Your task to perform on an android device: View the shopping cart on newegg.com. Add "razer blade" to the cart on newegg.com Image 0: 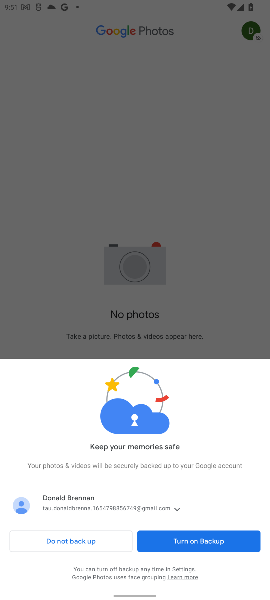
Step 0: press home button
Your task to perform on an android device: View the shopping cart on newegg.com. Add "razer blade" to the cart on newegg.com Image 1: 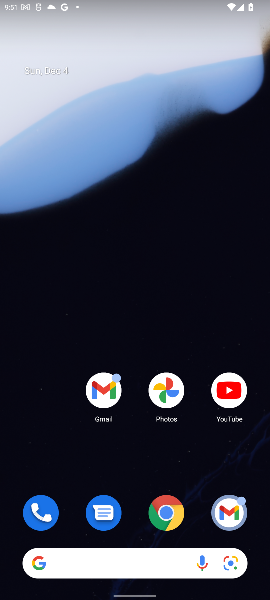
Step 1: click (168, 516)
Your task to perform on an android device: View the shopping cart on newegg.com. Add "razer blade" to the cart on newegg.com Image 2: 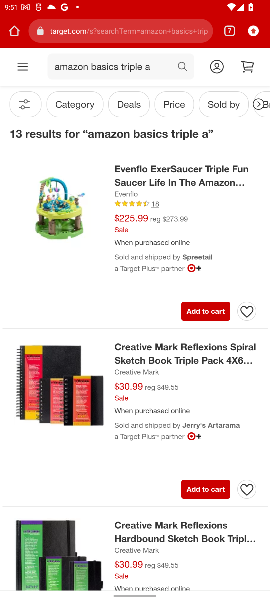
Step 2: click (233, 32)
Your task to perform on an android device: View the shopping cart on newegg.com. Add "razer blade" to the cart on newegg.com Image 3: 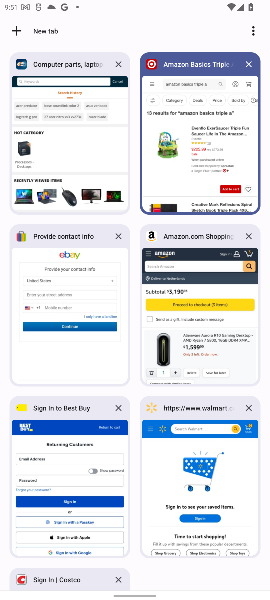
Step 3: click (65, 158)
Your task to perform on an android device: View the shopping cart on newegg.com. Add "razer blade" to the cart on newegg.com Image 4: 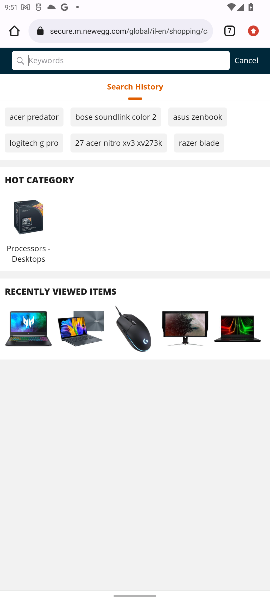
Step 4: type "razer blade"
Your task to perform on an android device: View the shopping cart on newegg.com. Add "razer blade" to the cart on newegg.com Image 5: 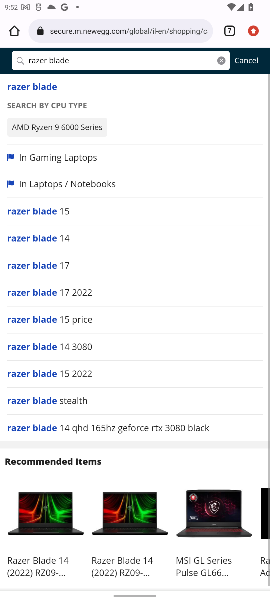
Step 5: click (35, 86)
Your task to perform on an android device: View the shopping cart on newegg.com. Add "razer blade" to the cart on newegg.com Image 6: 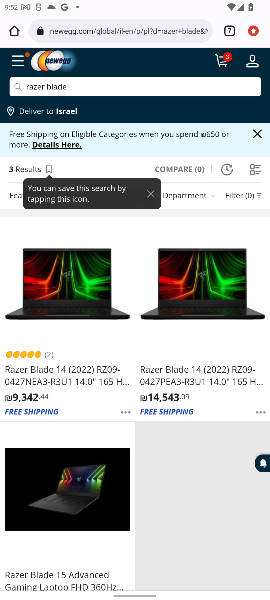
Step 6: click (83, 342)
Your task to perform on an android device: View the shopping cart on newegg.com. Add "razer blade" to the cart on newegg.com Image 7: 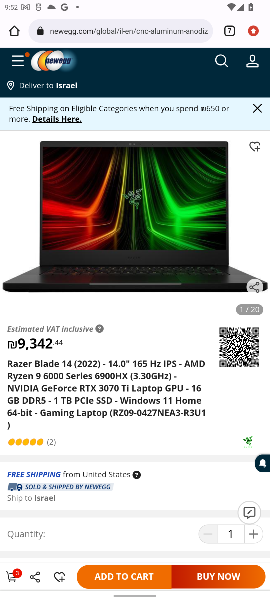
Step 7: click (97, 575)
Your task to perform on an android device: View the shopping cart on newegg.com. Add "razer blade" to the cart on newegg.com Image 8: 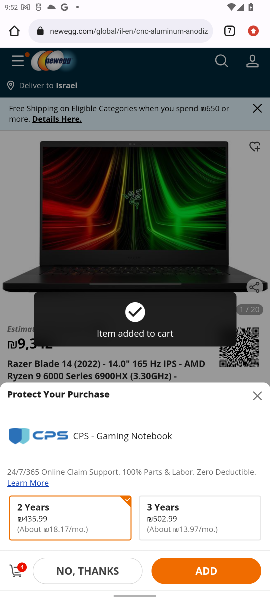
Step 8: task complete